Your task to perform on an android device: Go to Wikipedia Image 0: 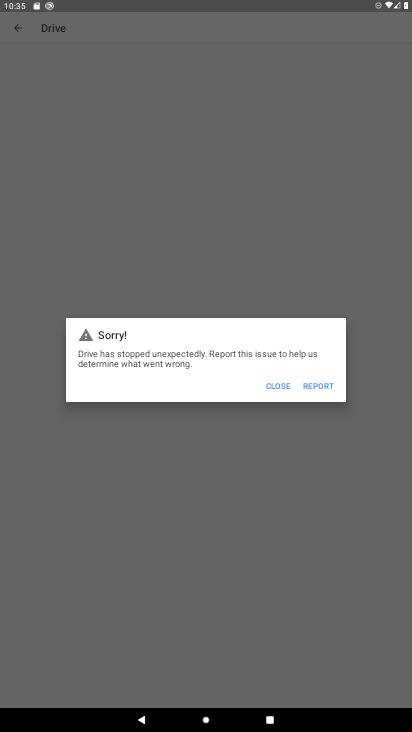
Step 0: press home button
Your task to perform on an android device: Go to Wikipedia Image 1: 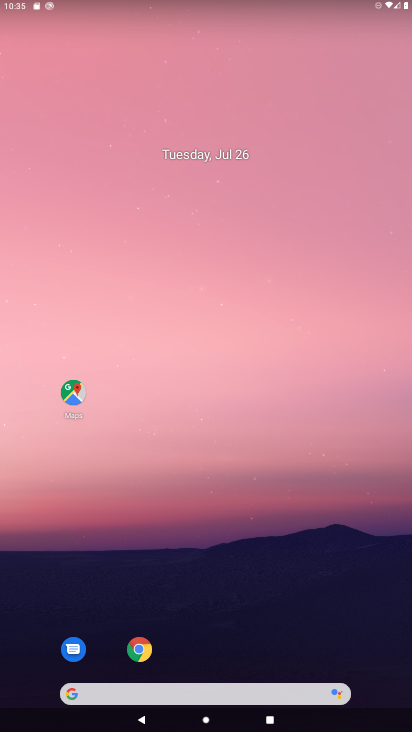
Step 1: click (145, 652)
Your task to perform on an android device: Go to Wikipedia Image 2: 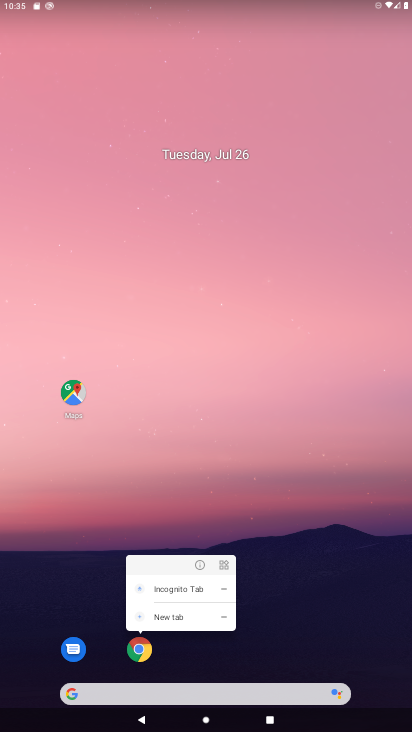
Step 2: click (140, 647)
Your task to perform on an android device: Go to Wikipedia Image 3: 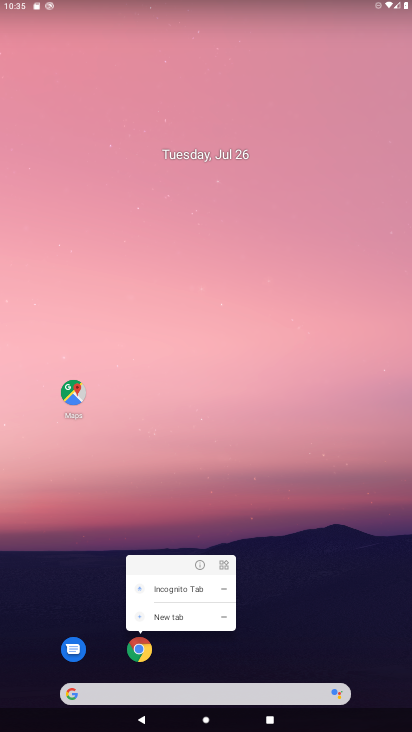
Step 3: click (140, 651)
Your task to perform on an android device: Go to Wikipedia Image 4: 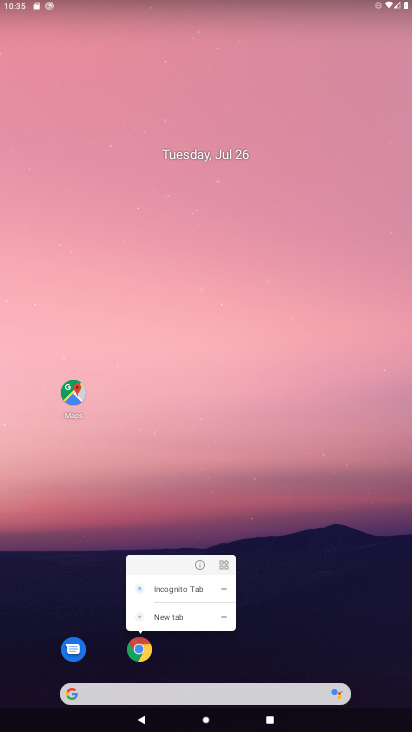
Step 4: click (134, 650)
Your task to perform on an android device: Go to Wikipedia Image 5: 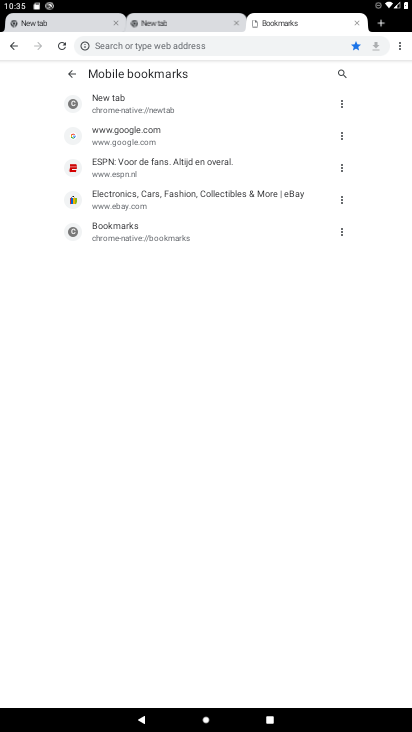
Step 5: click (356, 23)
Your task to perform on an android device: Go to Wikipedia Image 6: 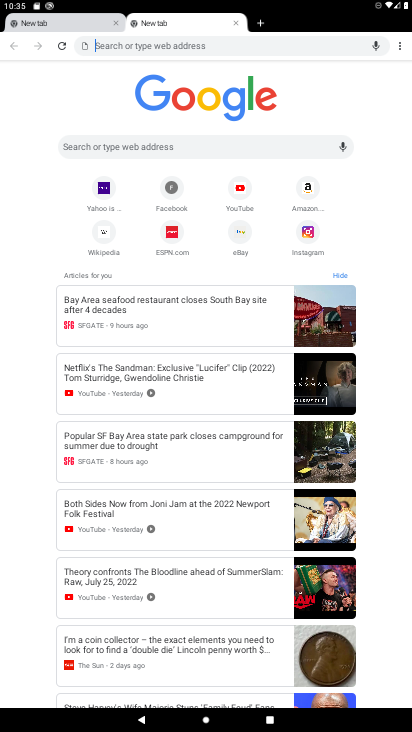
Step 6: click (99, 233)
Your task to perform on an android device: Go to Wikipedia Image 7: 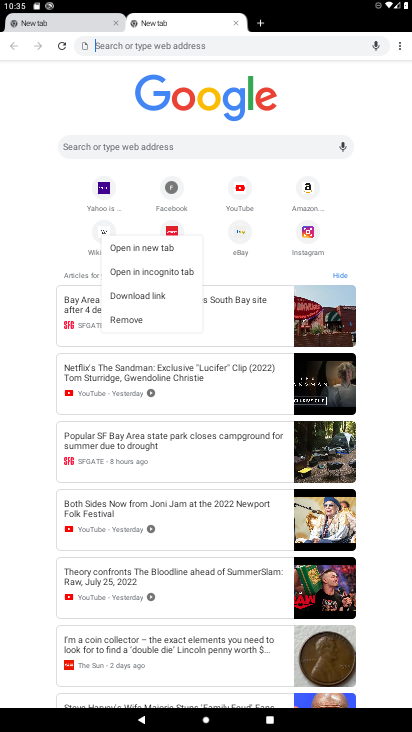
Step 7: click (103, 231)
Your task to perform on an android device: Go to Wikipedia Image 8: 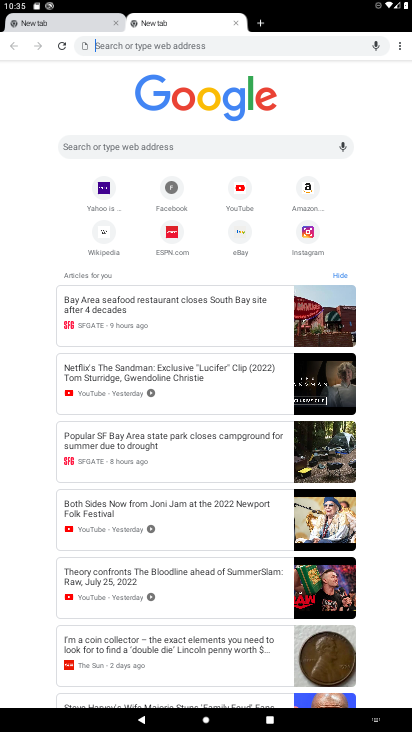
Step 8: click (104, 233)
Your task to perform on an android device: Go to Wikipedia Image 9: 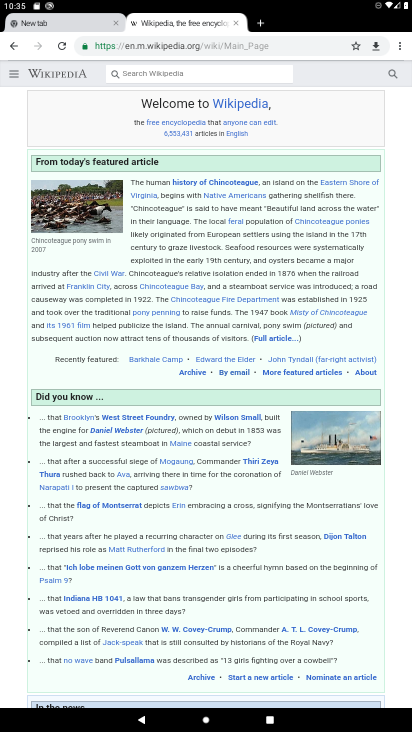
Step 9: task complete